Your task to perform on an android device: turn on sleep mode Image 0: 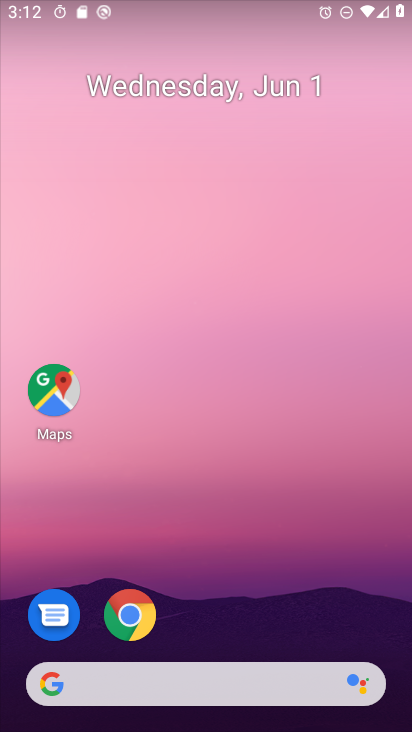
Step 0: drag from (321, 676) to (322, 7)
Your task to perform on an android device: turn on sleep mode Image 1: 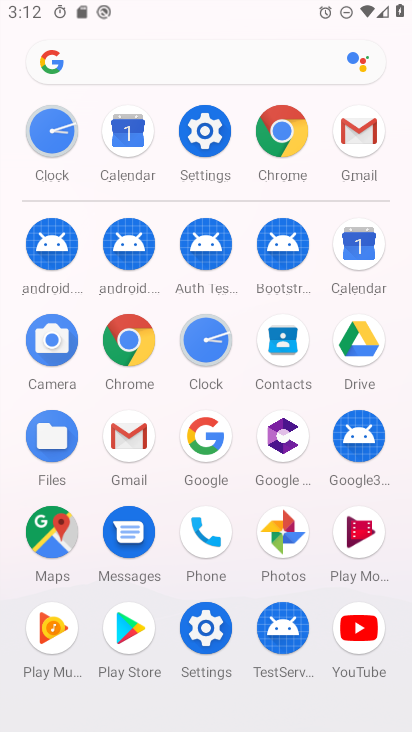
Step 1: click (217, 125)
Your task to perform on an android device: turn on sleep mode Image 2: 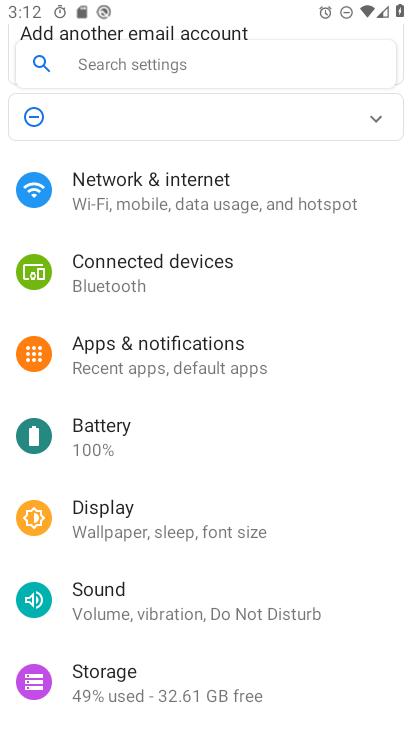
Step 2: click (158, 522)
Your task to perform on an android device: turn on sleep mode Image 3: 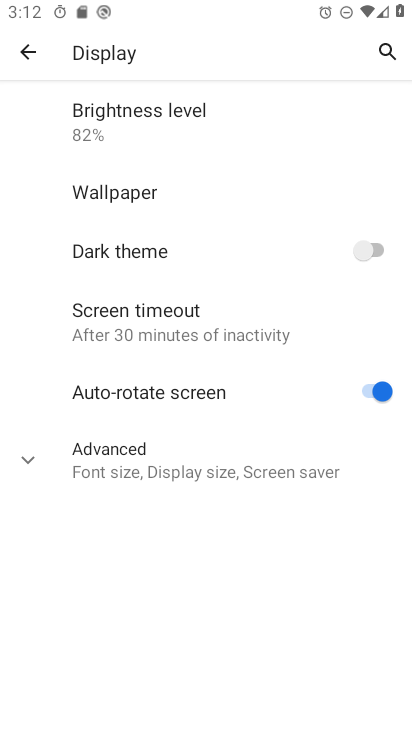
Step 3: task complete